Your task to perform on an android device: What's the weather? Image 0: 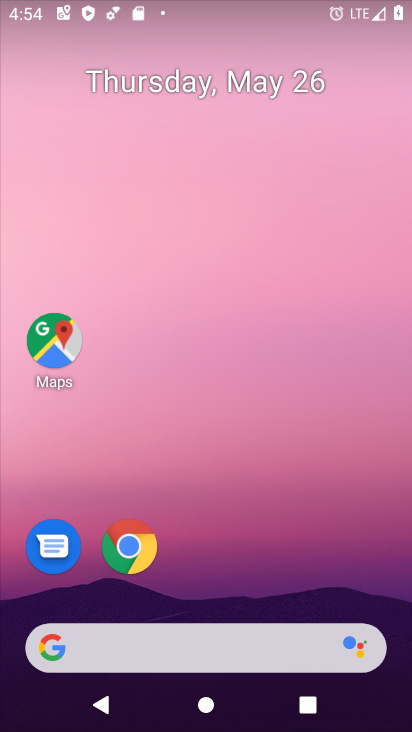
Step 0: click (122, 644)
Your task to perform on an android device: What's the weather? Image 1: 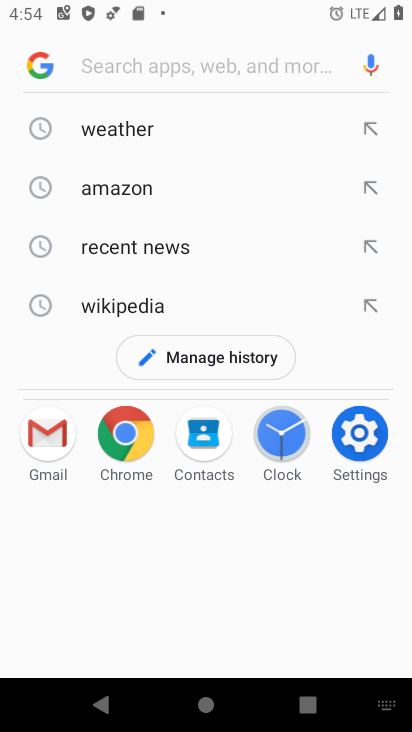
Step 1: click (102, 133)
Your task to perform on an android device: What's the weather? Image 2: 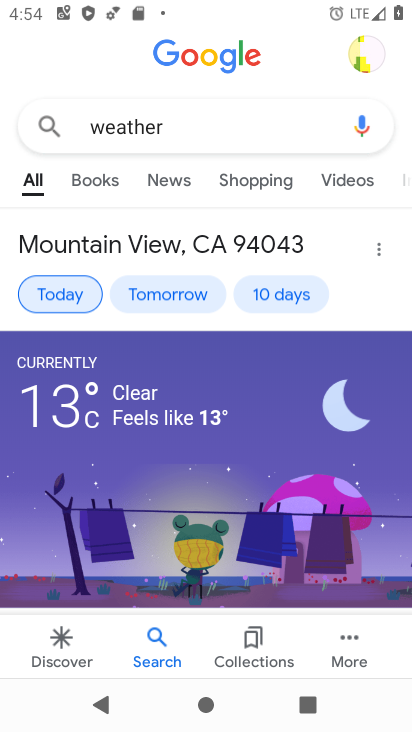
Step 2: task complete